Your task to perform on an android device: turn off translation in the chrome app Image 0: 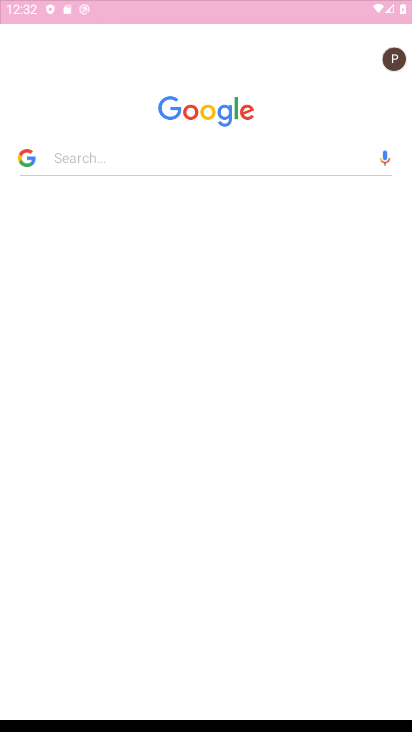
Step 0: press home button
Your task to perform on an android device: turn off translation in the chrome app Image 1: 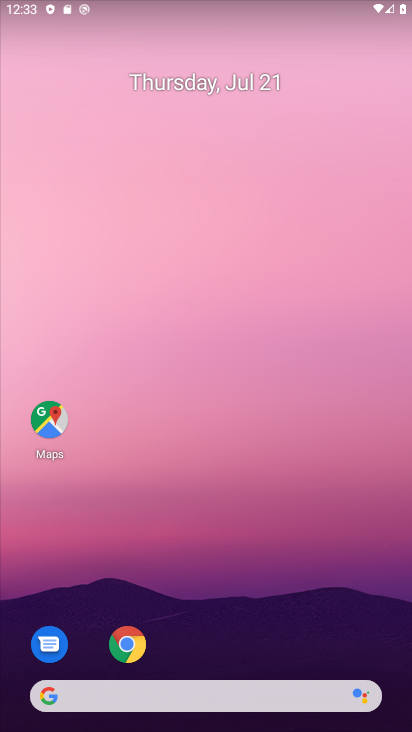
Step 1: click (126, 645)
Your task to perform on an android device: turn off translation in the chrome app Image 2: 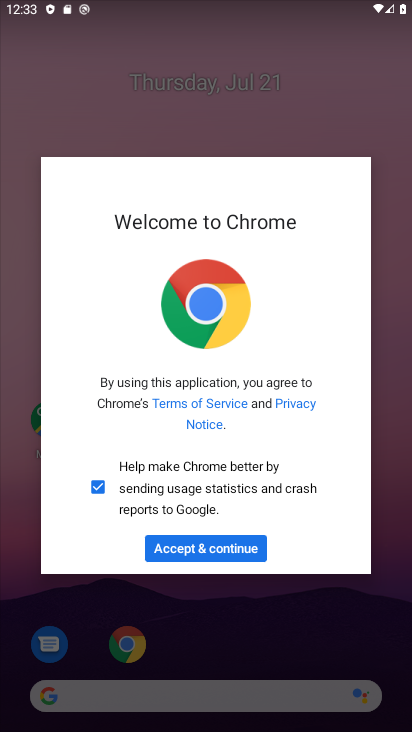
Step 2: click (171, 547)
Your task to perform on an android device: turn off translation in the chrome app Image 3: 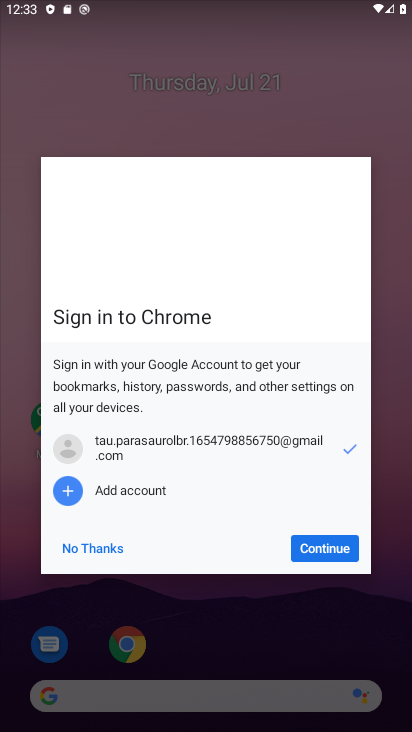
Step 3: click (324, 550)
Your task to perform on an android device: turn off translation in the chrome app Image 4: 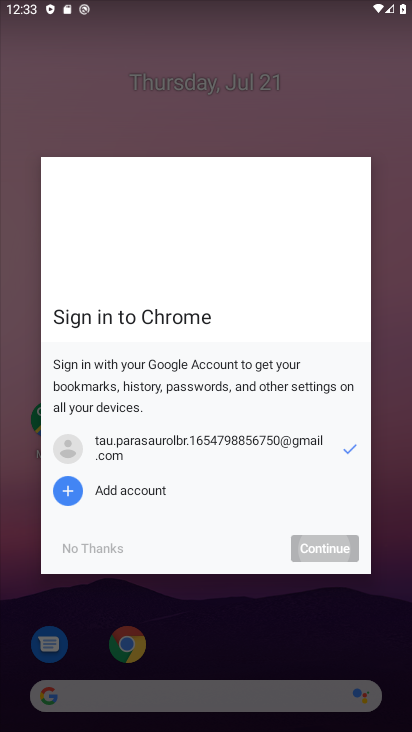
Step 4: click (324, 550)
Your task to perform on an android device: turn off translation in the chrome app Image 5: 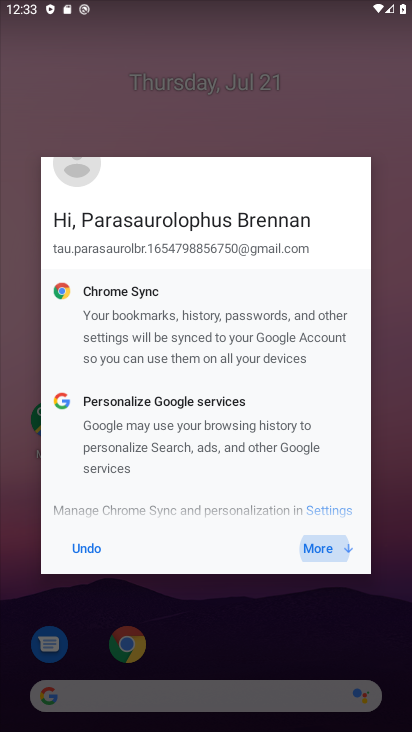
Step 5: click (324, 550)
Your task to perform on an android device: turn off translation in the chrome app Image 6: 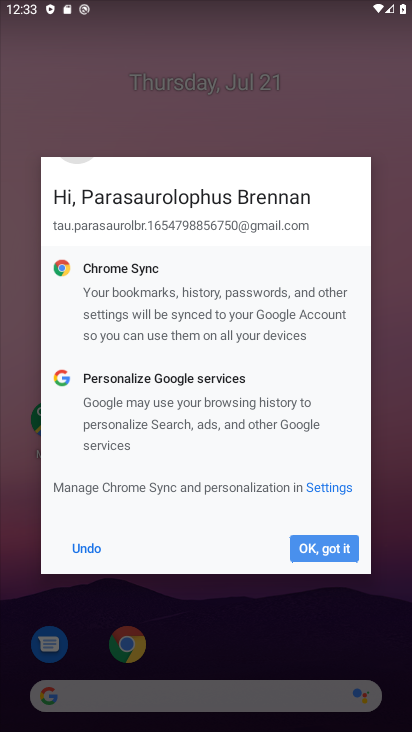
Step 6: click (324, 550)
Your task to perform on an android device: turn off translation in the chrome app Image 7: 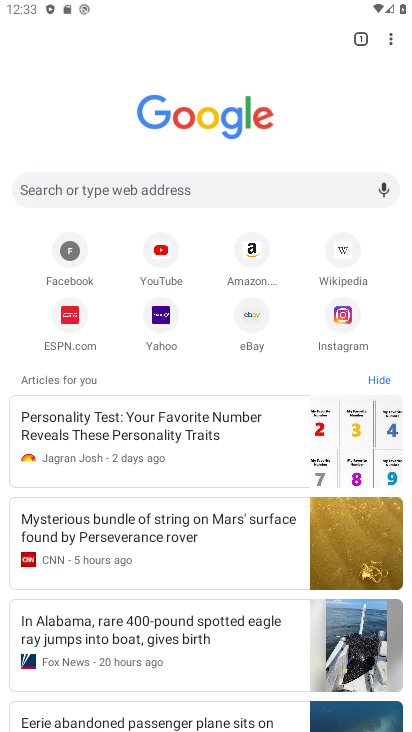
Step 7: drag from (396, 43) to (281, 319)
Your task to perform on an android device: turn off translation in the chrome app Image 8: 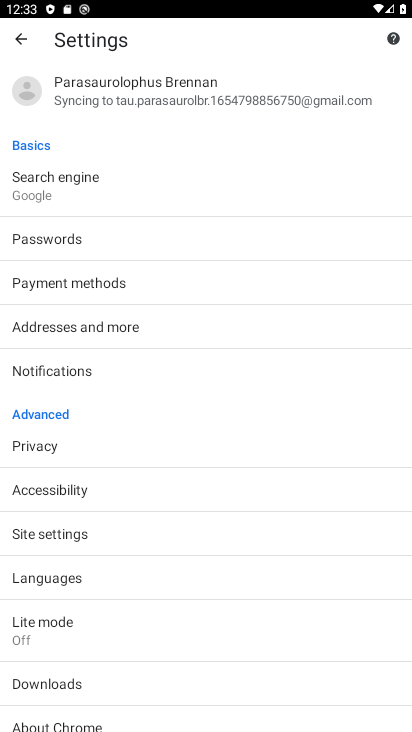
Step 8: drag from (157, 658) to (164, 365)
Your task to perform on an android device: turn off translation in the chrome app Image 9: 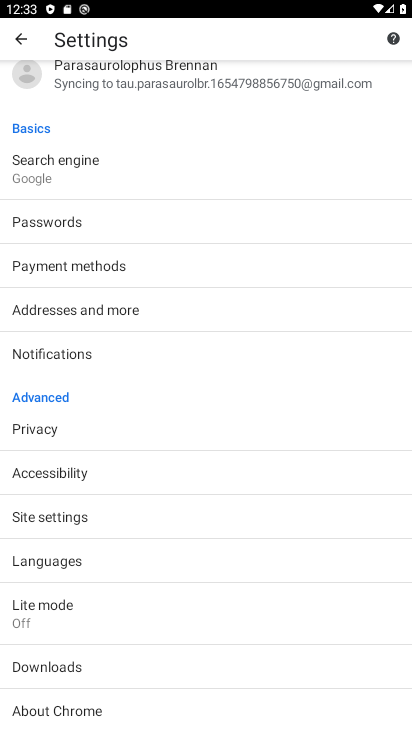
Step 9: click (49, 555)
Your task to perform on an android device: turn off translation in the chrome app Image 10: 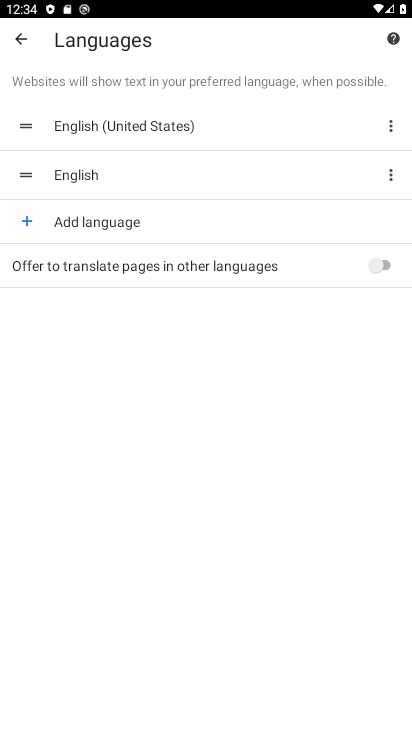
Step 10: task complete